Your task to perform on an android device: Open calendar and show me the second week of next month Image 0: 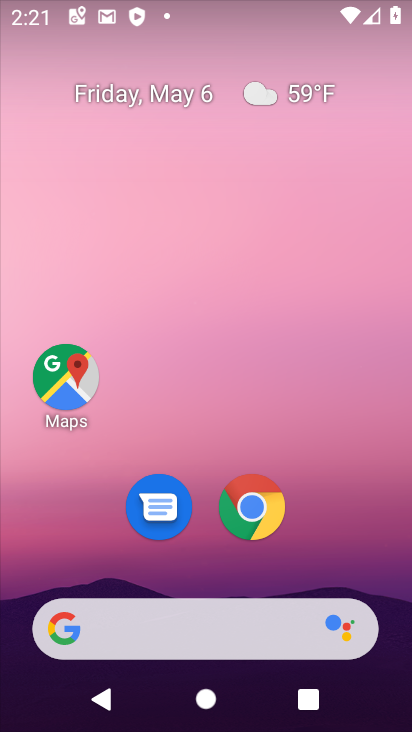
Step 0: drag from (342, 540) to (356, 197)
Your task to perform on an android device: Open calendar and show me the second week of next month Image 1: 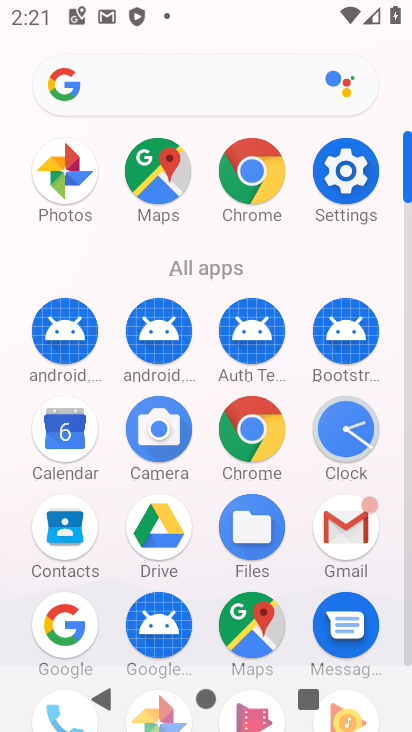
Step 1: click (82, 445)
Your task to perform on an android device: Open calendar and show me the second week of next month Image 2: 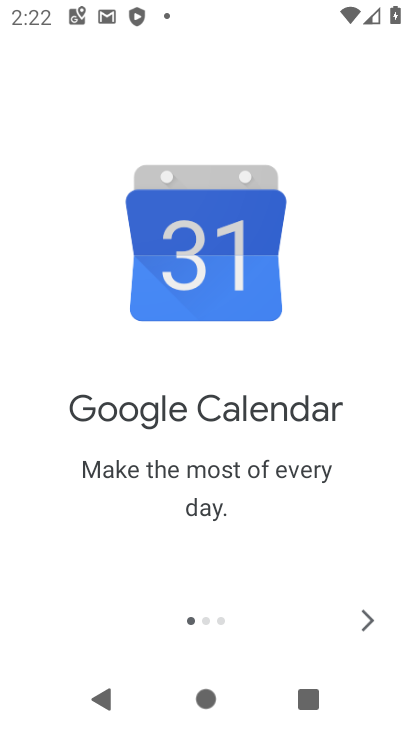
Step 2: click (363, 626)
Your task to perform on an android device: Open calendar and show me the second week of next month Image 3: 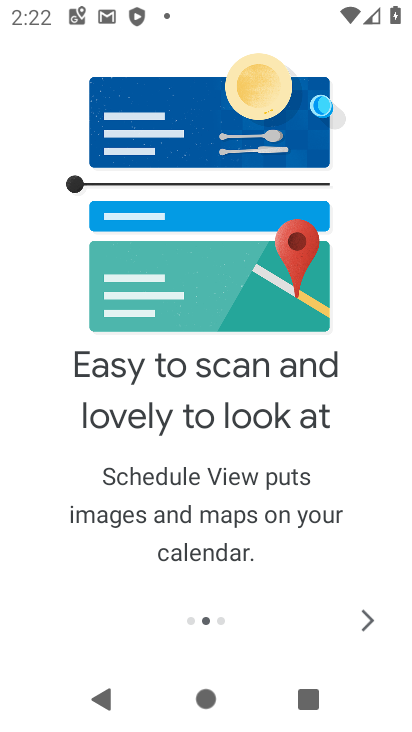
Step 3: click (363, 626)
Your task to perform on an android device: Open calendar and show me the second week of next month Image 4: 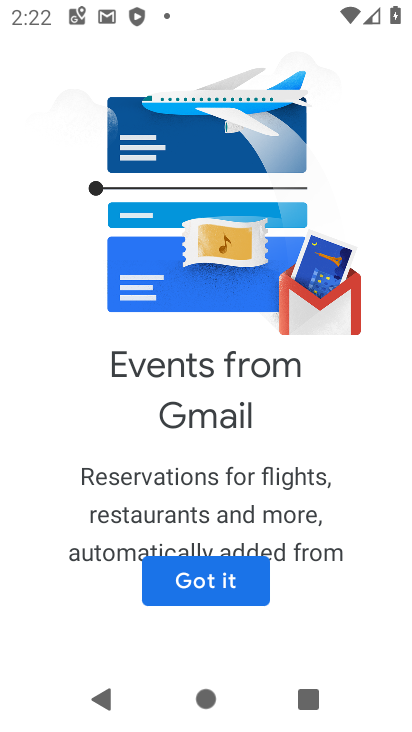
Step 4: click (250, 581)
Your task to perform on an android device: Open calendar and show me the second week of next month Image 5: 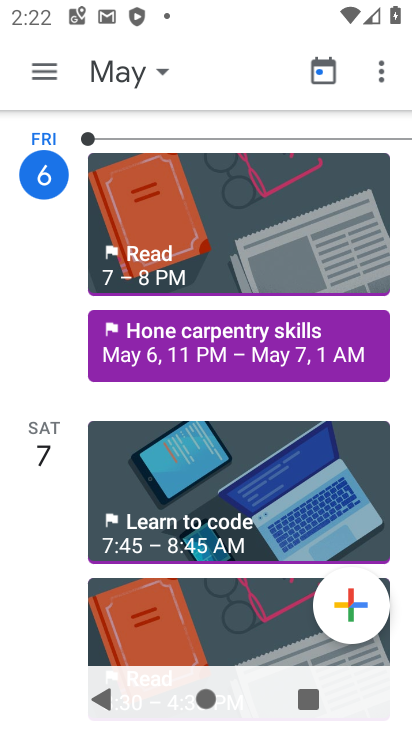
Step 5: click (156, 81)
Your task to perform on an android device: Open calendar and show me the second week of next month Image 6: 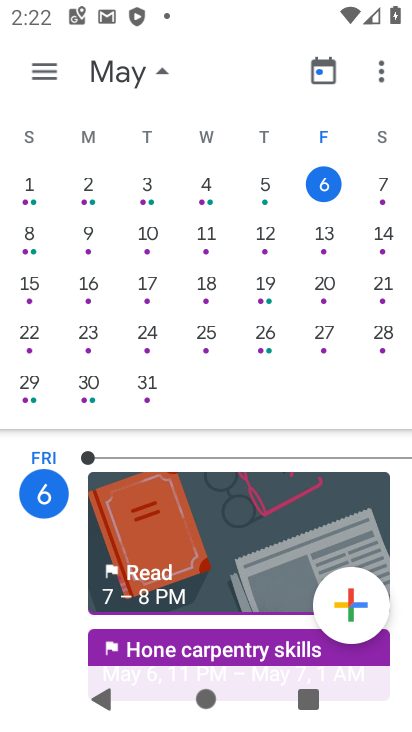
Step 6: drag from (318, 288) to (1, 293)
Your task to perform on an android device: Open calendar and show me the second week of next month Image 7: 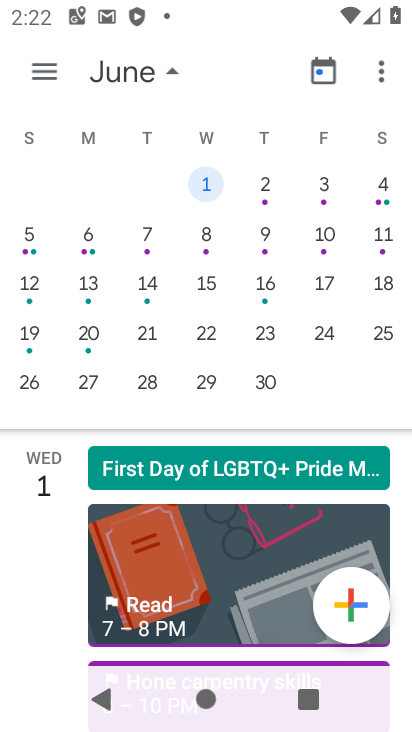
Step 7: click (21, 249)
Your task to perform on an android device: Open calendar and show me the second week of next month Image 8: 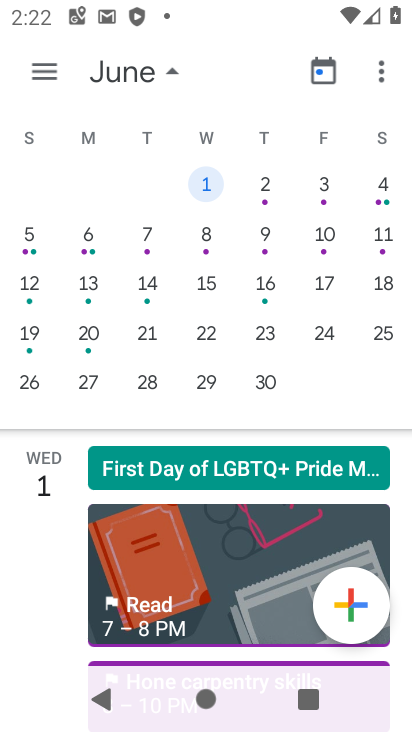
Step 8: click (100, 254)
Your task to perform on an android device: Open calendar and show me the second week of next month Image 9: 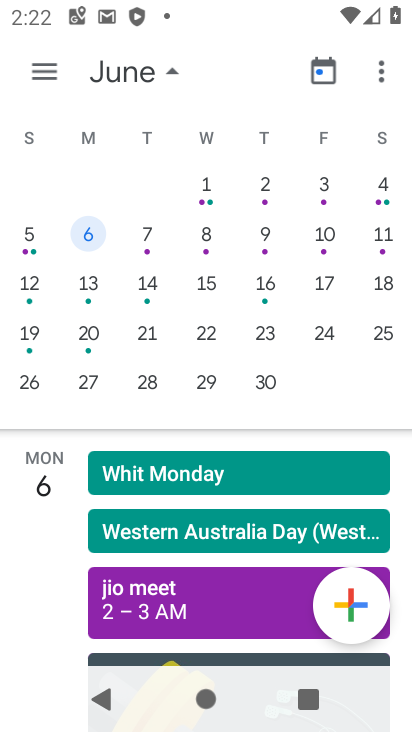
Step 9: click (142, 256)
Your task to perform on an android device: Open calendar and show me the second week of next month Image 10: 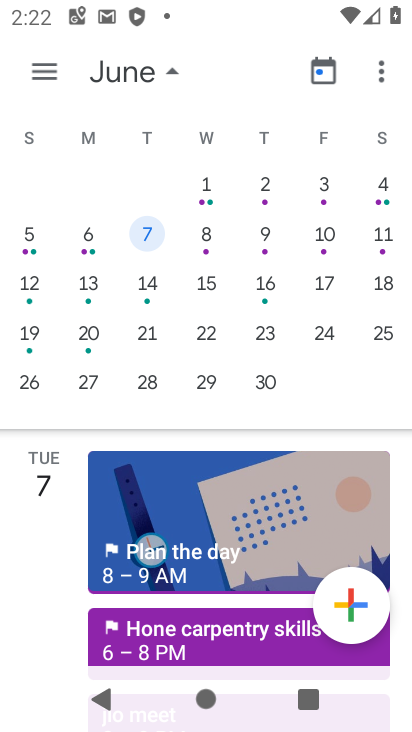
Step 10: click (221, 251)
Your task to perform on an android device: Open calendar and show me the second week of next month Image 11: 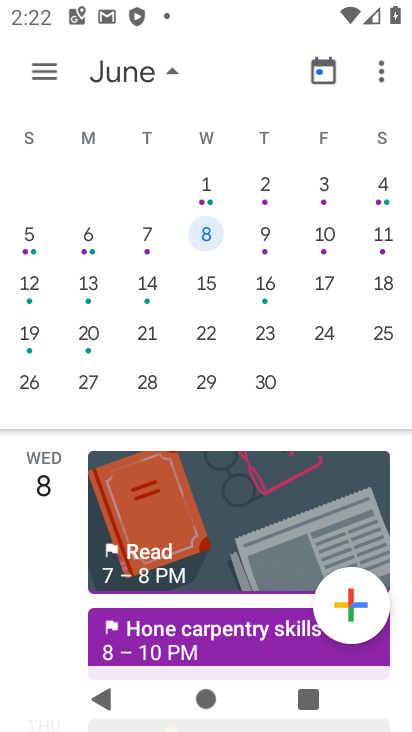
Step 11: click (263, 252)
Your task to perform on an android device: Open calendar and show me the second week of next month Image 12: 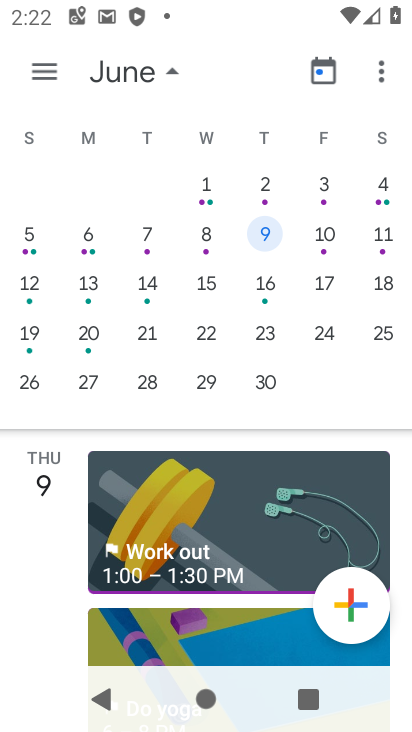
Step 12: click (329, 251)
Your task to perform on an android device: Open calendar and show me the second week of next month Image 13: 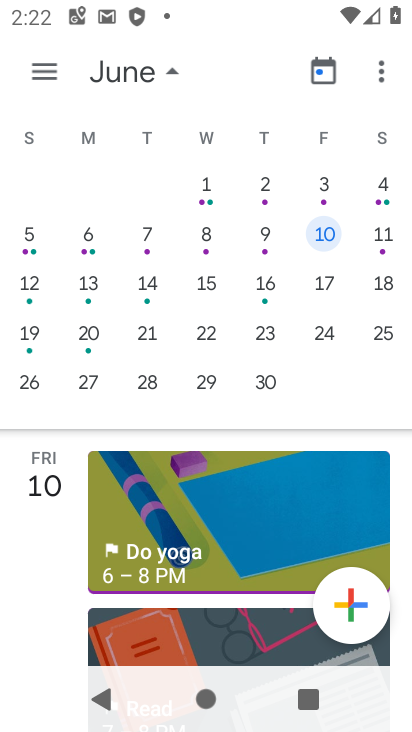
Step 13: click (380, 252)
Your task to perform on an android device: Open calendar and show me the second week of next month Image 14: 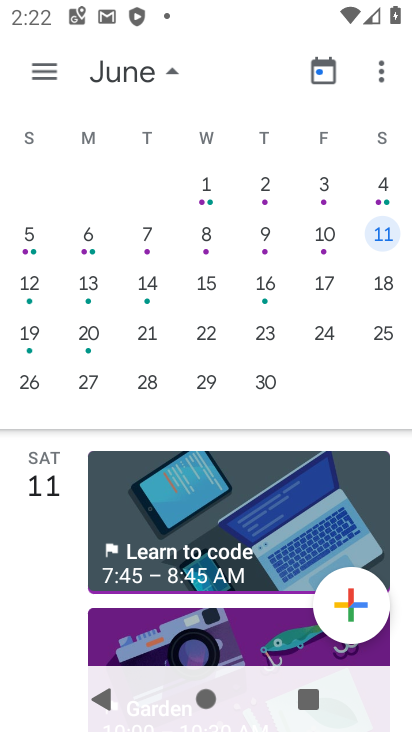
Step 14: task complete